Your task to perform on an android device: Show me the alarms in the clock app Image 0: 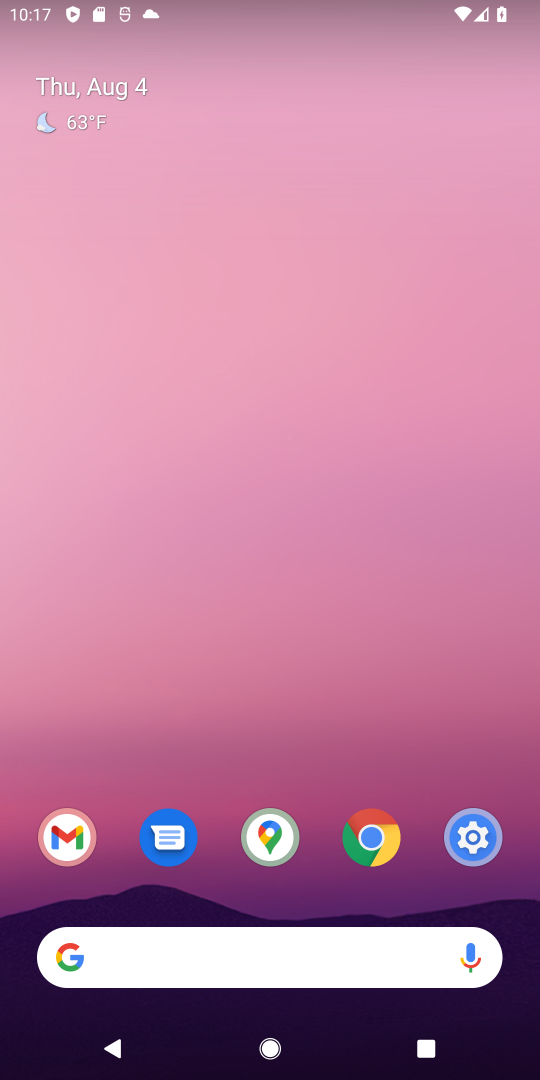
Step 0: drag from (287, 880) to (273, 283)
Your task to perform on an android device: Show me the alarms in the clock app Image 1: 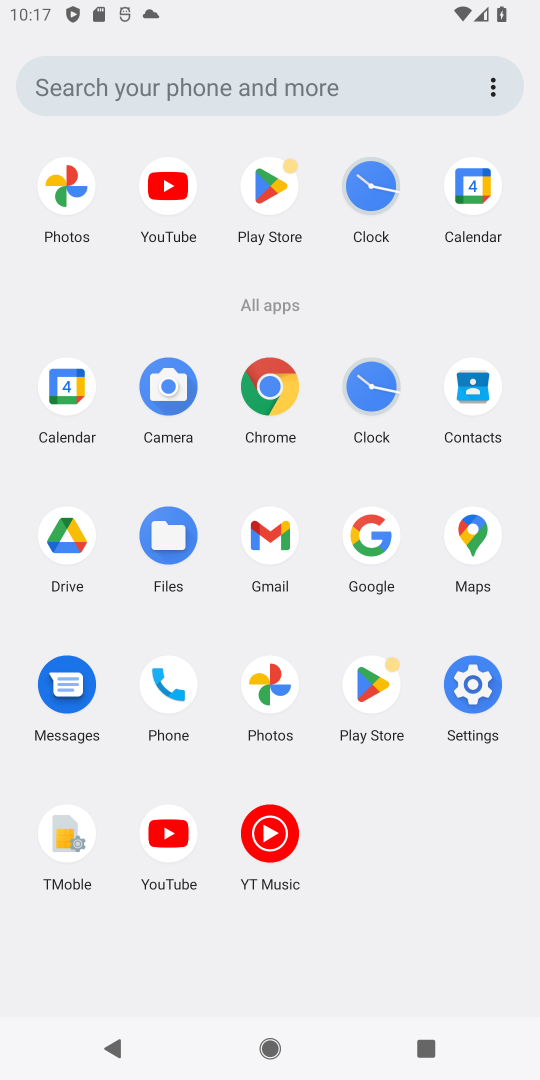
Step 1: click (366, 379)
Your task to perform on an android device: Show me the alarms in the clock app Image 2: 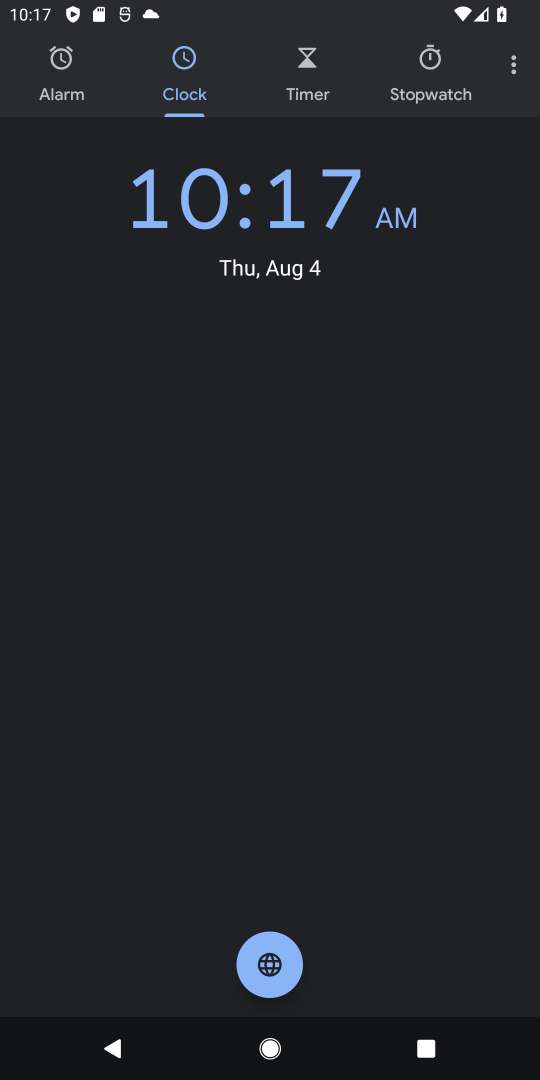
Step 2: click (58, 80)
Your task to perform on an android device: Show me the alarms in the clock app Image 3: 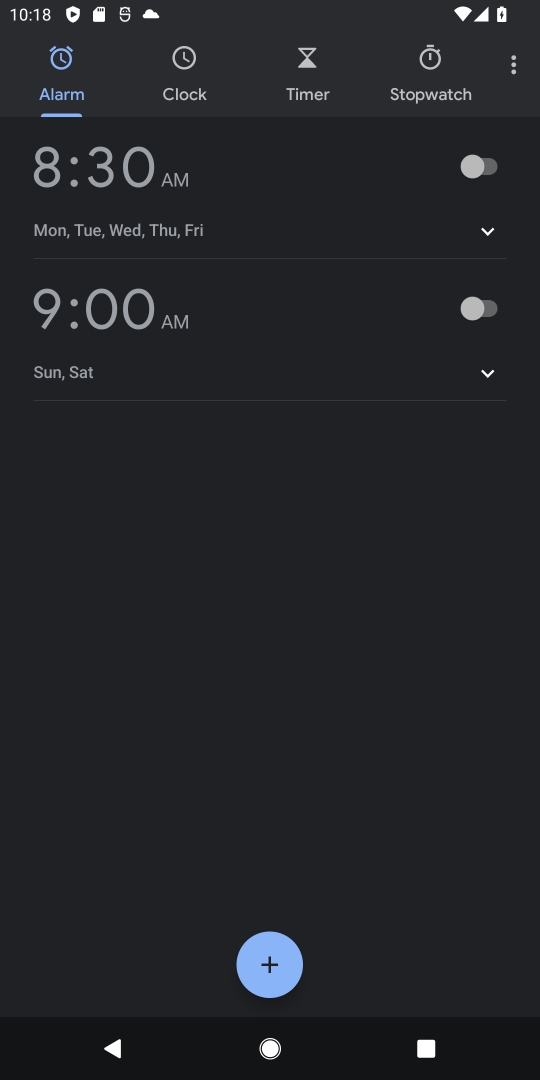
Step 3: task complete